Your task to perform on an android device: Clear all items from cart on bestbuy.com. Search for "lenovo thinkpad" on bestbuy.com, select the first entry, and add it to the cart. Image 0: 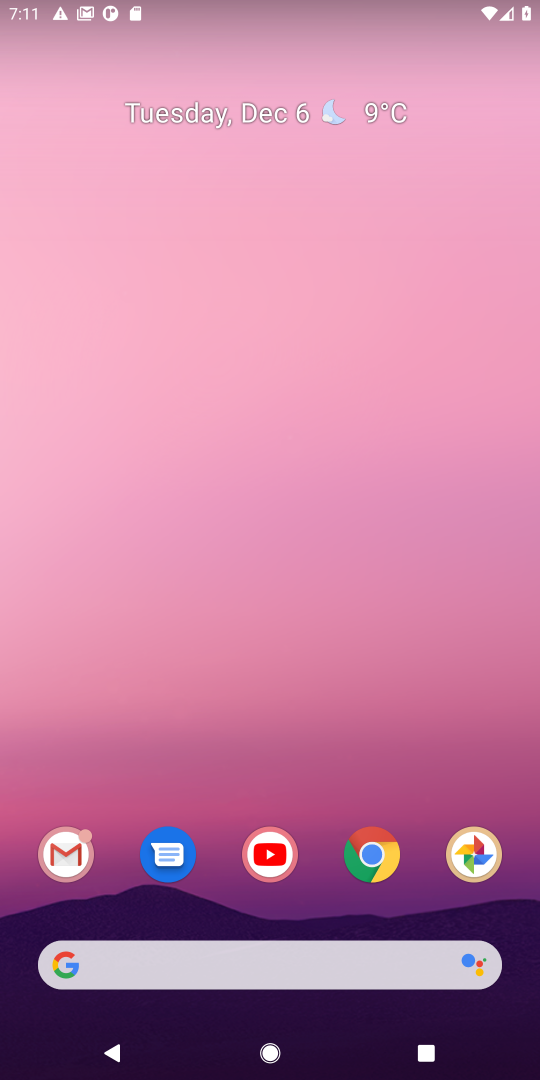
Step 0: click (371, 858)
Your task to perform on an android device: Clear all items from cart on bestbuy.com. Search for "lenovo thinkpad" on bestbuy.com, select the first entry, and add it to the cart. Image 1: 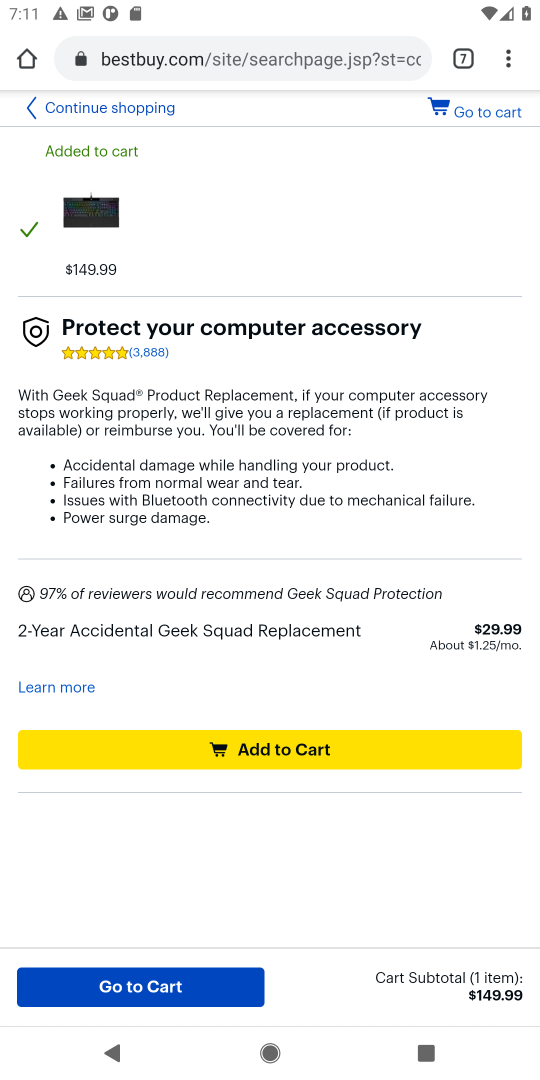
Step 1: click (137, 110)
Your task to perform on an android device: Clear all items from cart on bestbuy.com. Search for "lenovo thinkpad" on bestbuy.com, select the first entry, and add it to the cart. Image 2: 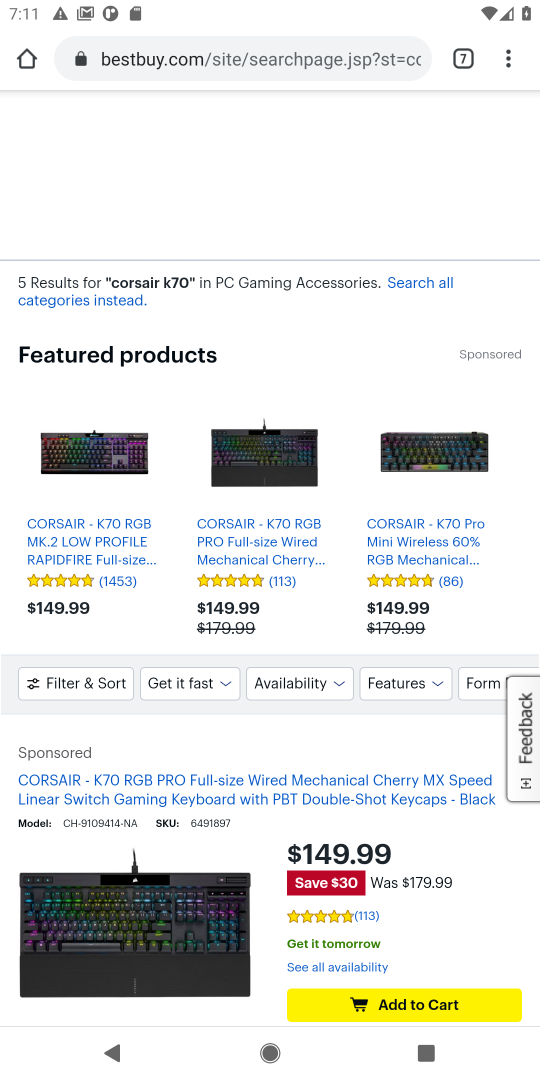
Step 2: drag from (278, 156) to (276, 484)
Your task to perform on an android device: Clear all items from cart on bestbuy.com. Search for "lenovo thinkpad" on bestbuy.com, select the first entry, and add it to the cart. Image 3: 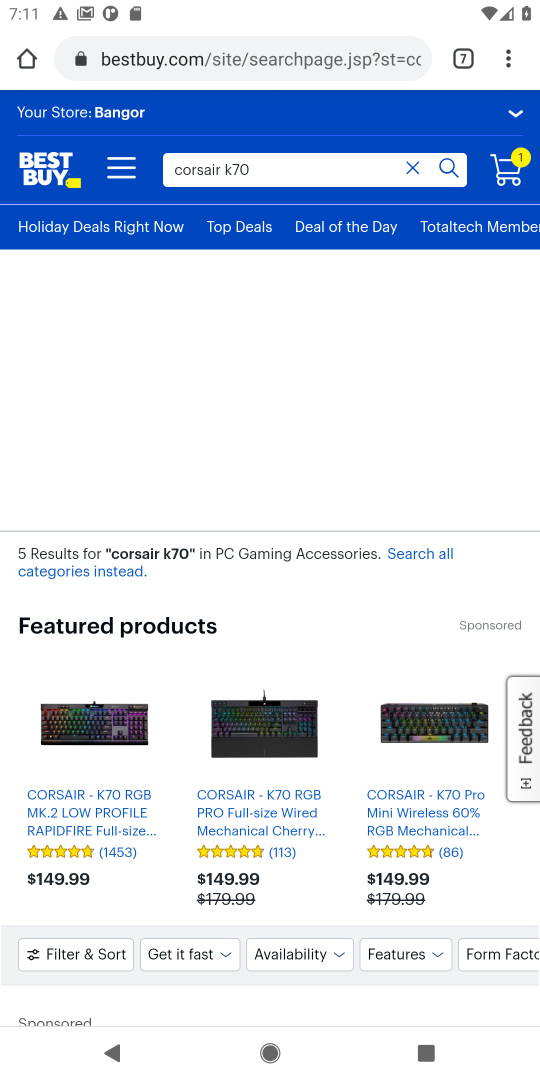
Step 3: click (411, 168)
Your task to perform on an android device: Clear all items from cart on bestbuy.com. Search for "lenovo thinkpad" on bestbuy.com, select the first entry, and add it to the cart. Image 4: 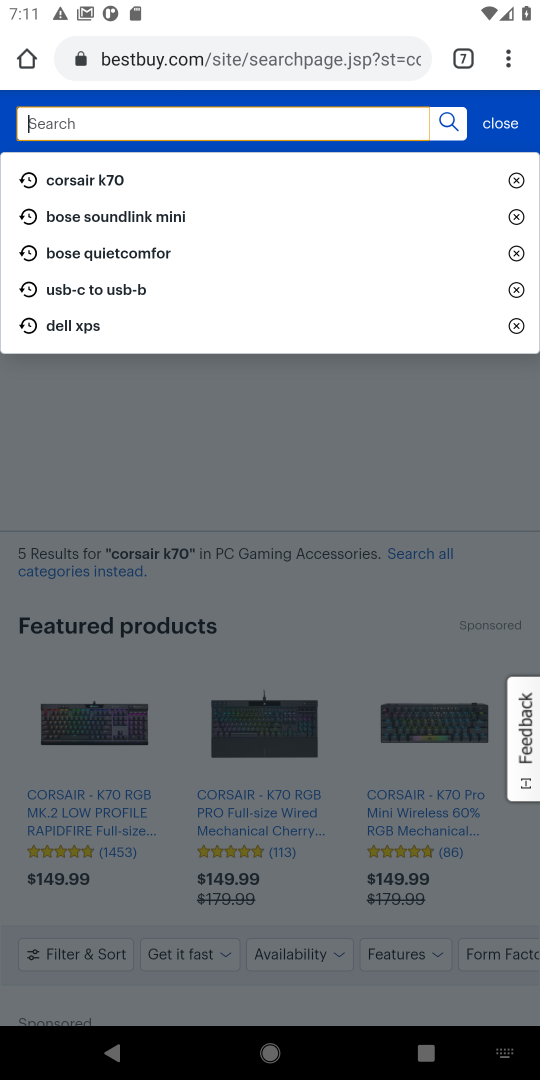
Step 4: type "lenovo thinkpad"
Your task to perform on an android device: Clear all items from cart on bestbuy.com. Search for "lenovo thinkpad" on bestbuy.com, select the first entry, and add it to the cart. Image 5: 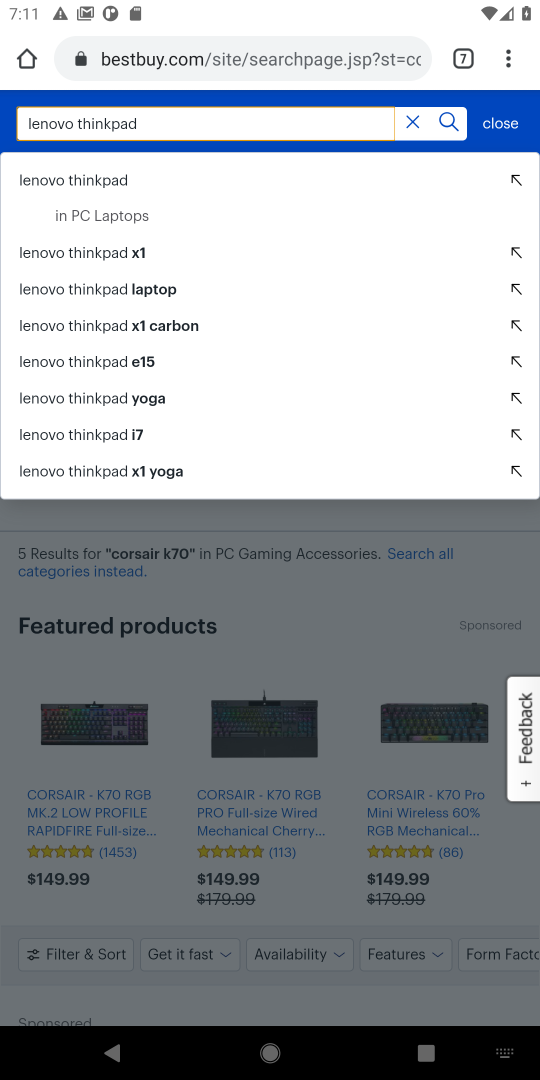
Step 5: click (94, 195)
Your task to perform on an android device: Clear all items from cart on bestbuy.com. Search for "lenovo thinkpad" on bestbuy.com, select the first entry, and add it to the cart. Image 6: 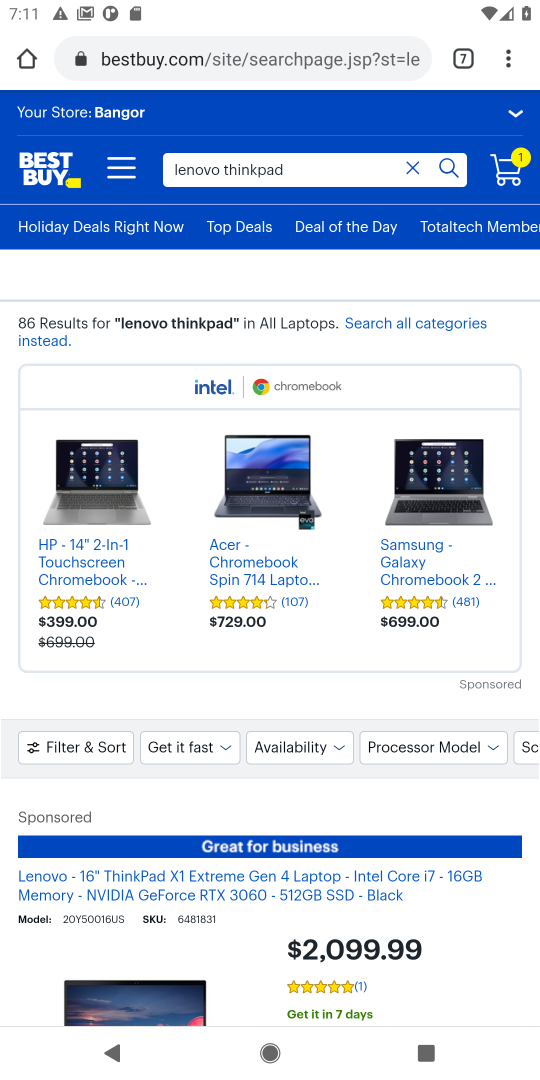
Step 6: drag from (226, 955) to (212, 560)
Your task to perform on an android device: Clear all items from cart on bestbuy.com. Search for "lenovo thinkpad" on bestbuy.com, select the first entry, and add it to the cart. Image 7: 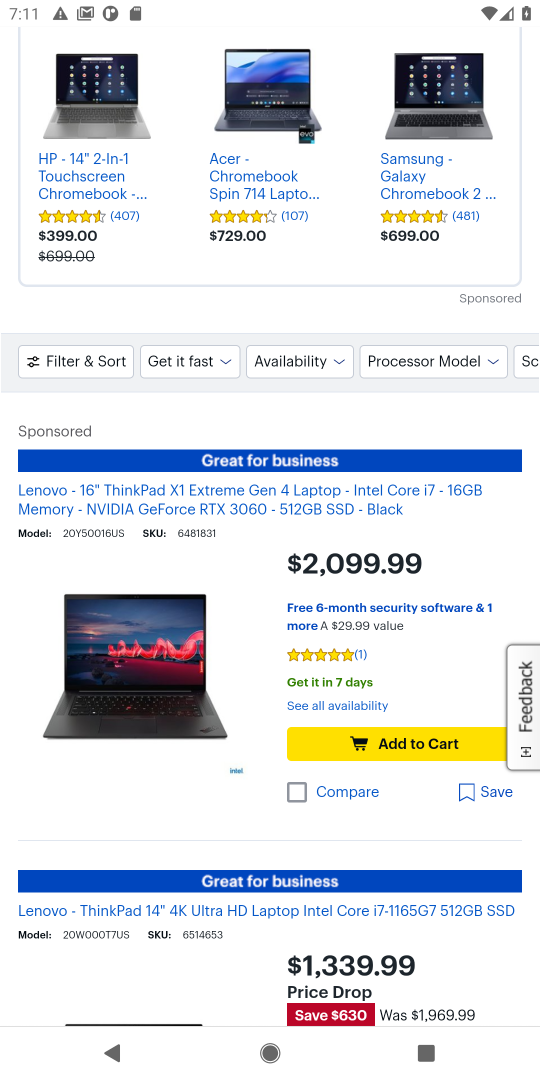
Step 7: click (389, 744)
Your task to perform on an android device: Clear all items from cart on bestbuy.com. Search for "lenovo thinkpad" on bestbuy.com, select the first entry, and add it to the cart. Image 8: 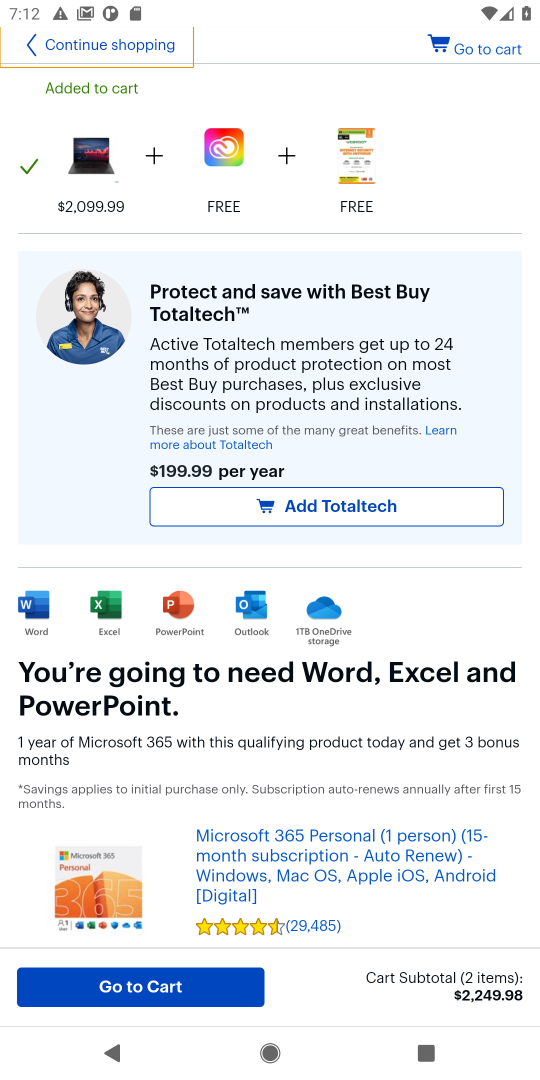
Step 8: task complete